Your task to perform on an android device: toggle location history Image 0: 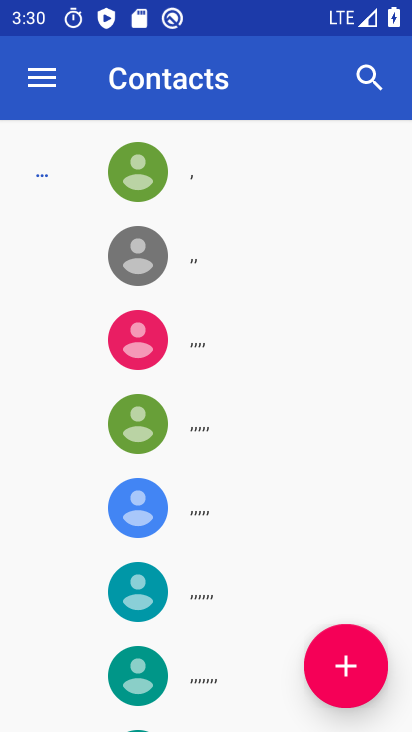
Step 0: press home button
Your task to perform on an android device: toggle location history Image 1: 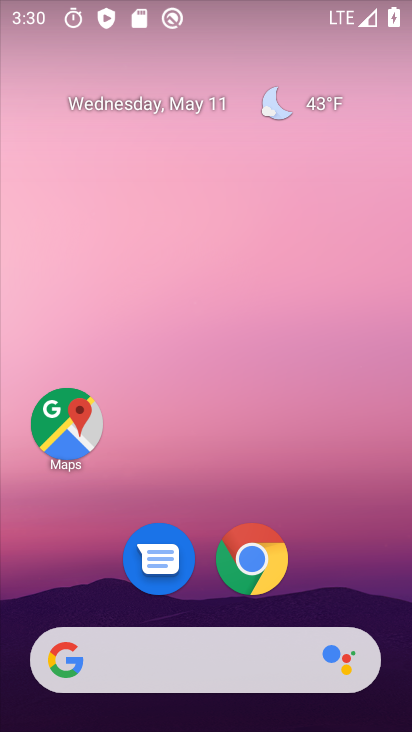
Step 1: drag from (344, 543) to (248, 108)
Your task to perform on an android device: toggle location history Image 2: 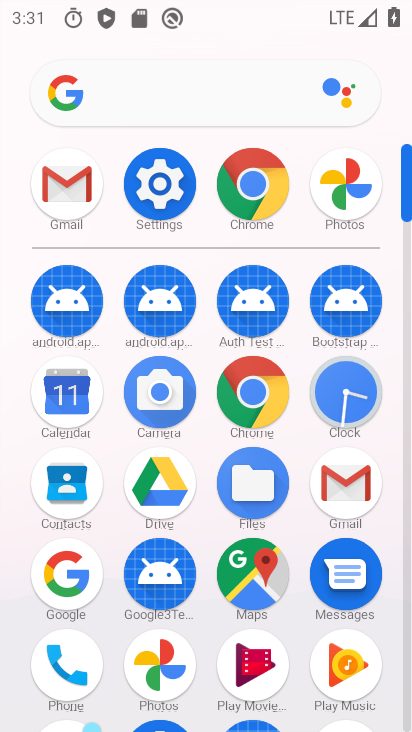
Step 2: click (166, 204)
Your task to perform on an android device: toggle location history Image 3: 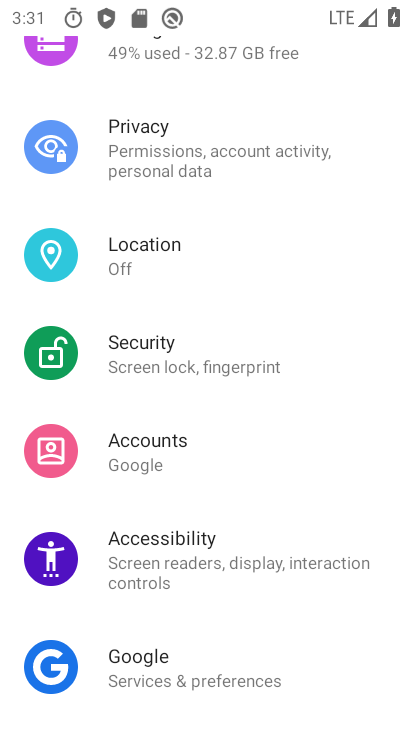
Step 3: click (219, 262)
Your task to perform on an android device: toggle location history Image 4: 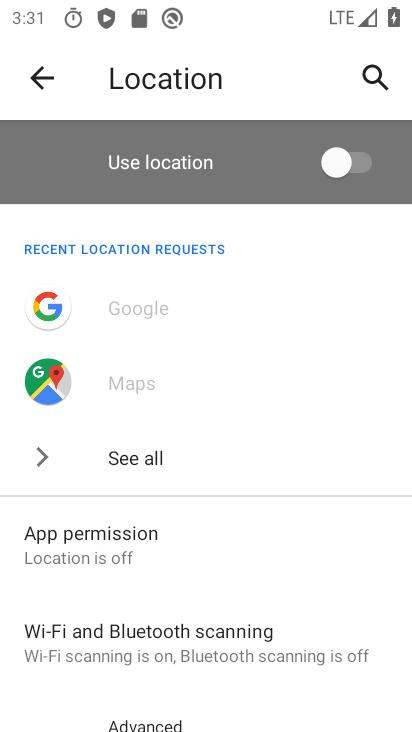
Step 4: drag from (198, 596) to (247, 267)
Your task to perform on an android device: toggle location history Image 5: 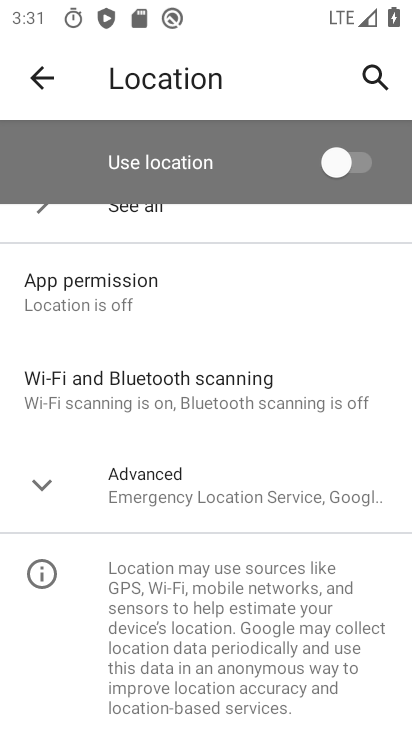
Step 5: click (200, 532)
Your task to perform on an android device: toggle location history Image 6: 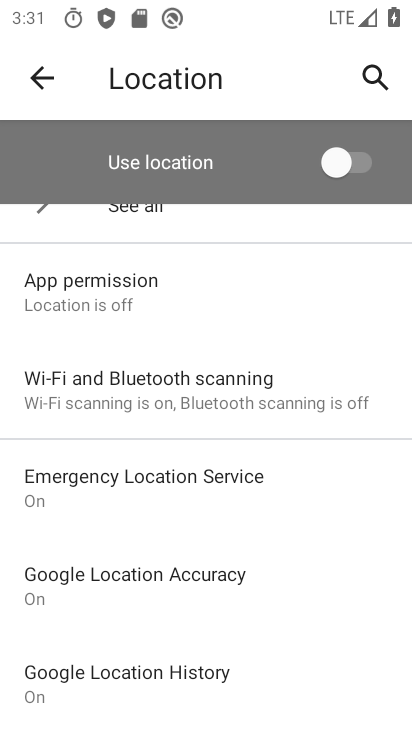
Step 6: click (197, 657)
Your task to perform on an android device: toggle location history Image 7: 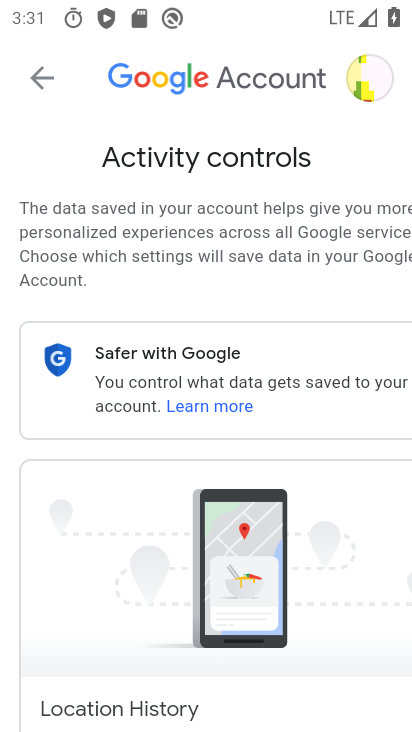
Step 7: drag from (270, 381) to (259, 77)
Your task to perform on an android device: toggle location history Image 8: 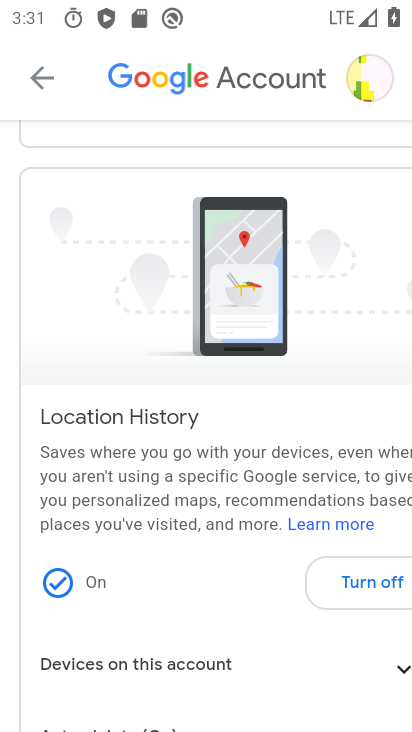
Step 8: click (351, 579)
Your task to perform on an android device: toggle location history Image 9: 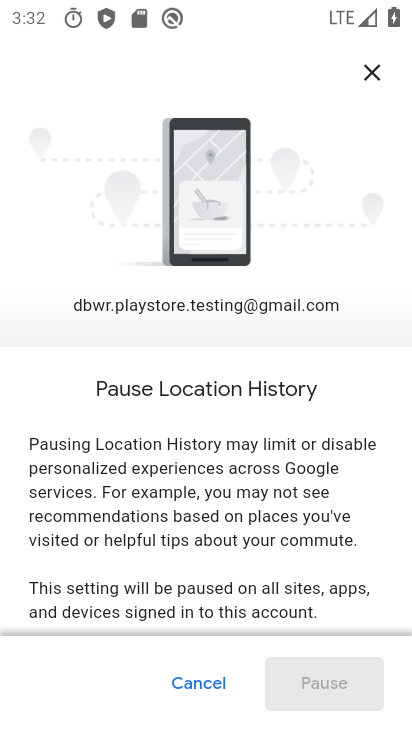
Step 9: drag from (321, 576) to (272, 130)
Your task to perform on an android device: toggle location history Image 10: 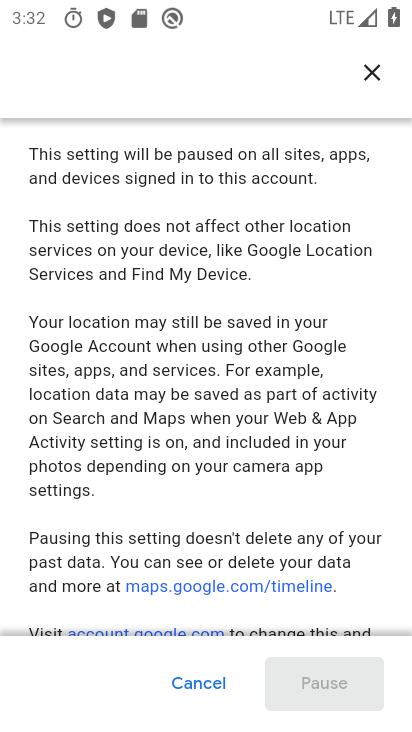
Step 10: drag from (303, 587) to (281, 188)
Your task to perform on an android device: toggle location history Image 11: 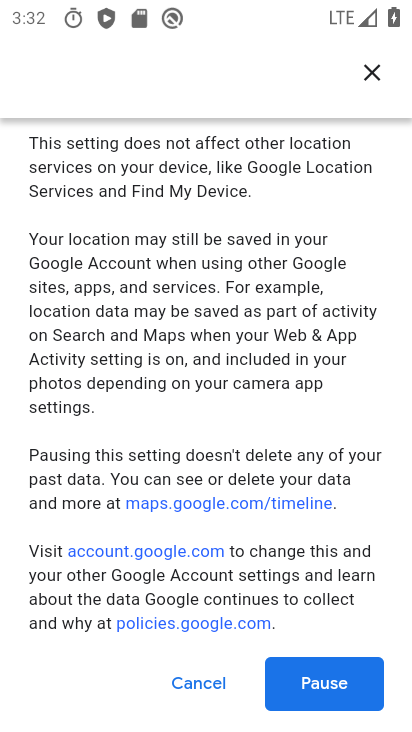
Step 11: click (335, 684)
Your task to perform on an android device: toggle location history Image 12: 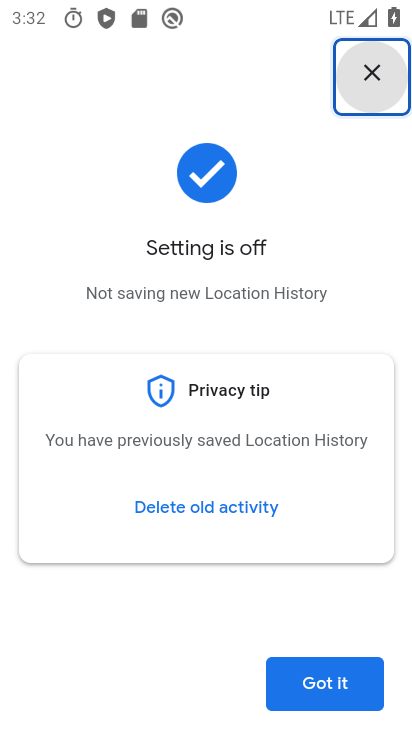
Step 12: click (330, 671)
Your task to perform on an android device: toggle location history Image 13: 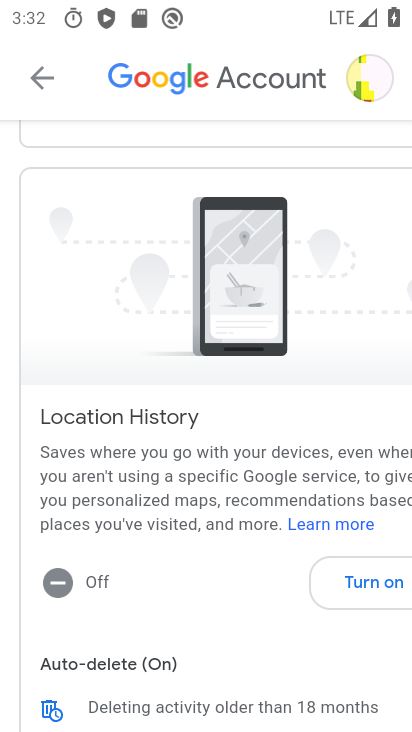
Step 13: task complete